Your task to perform on an android device: Open Google Chrome and open the bookmarks view Image 0: 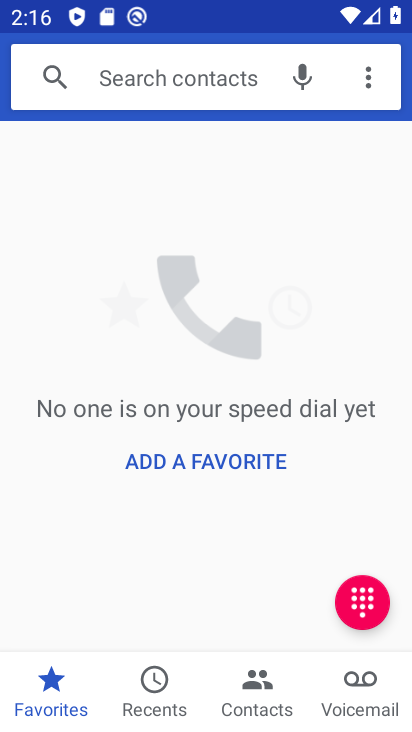
Step 0: press home button
Your task to perform on an android device: Open Google Chrome and open the bookmarks view Image 1: 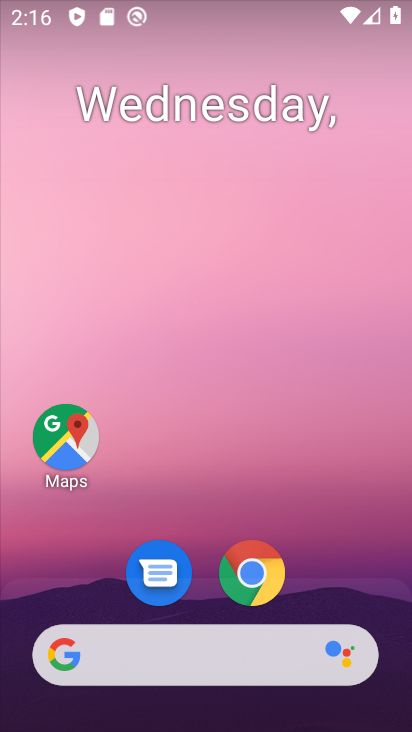
Step 1: click (266, 578)
Your task to perform on an android device: Open Google Chrome and open the bookmarks view Image 2: 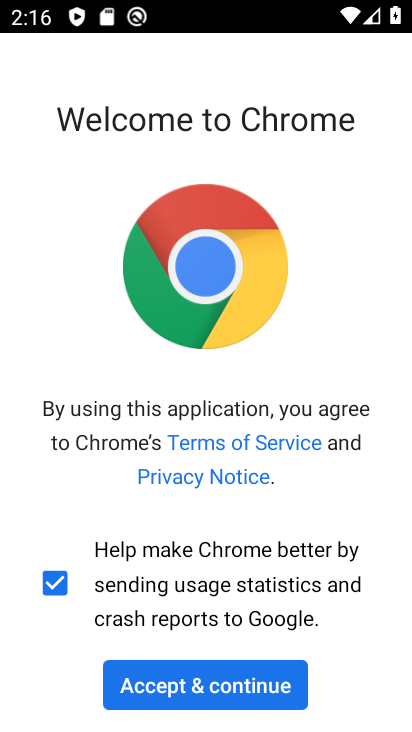
Step 2: click (286, 690)
Your task to perform on an android device: Open Google Chrome and open the bookmarks view Image 3: 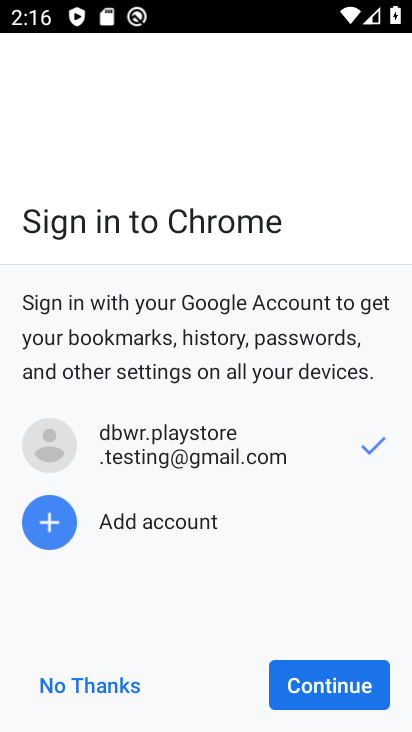
Step 3: click (313, 679)
Your task to perform on an android device: Open Google Chrome and open the bookmarks view Image 4: 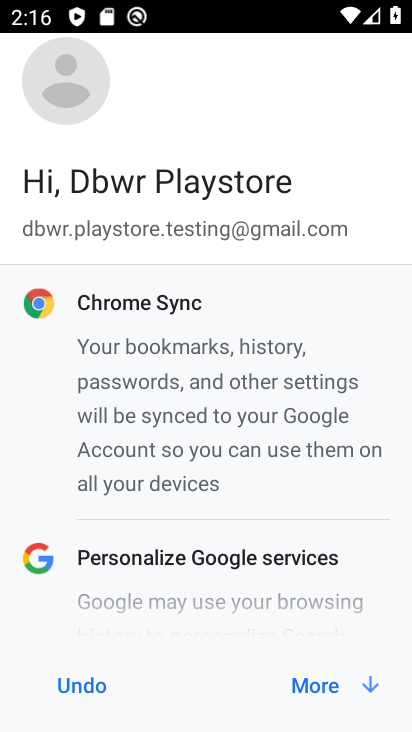
Step 4: click (327, 687)
Your task to perform on an android device: Open Google Chrome and open the bookmarks view Image 5: 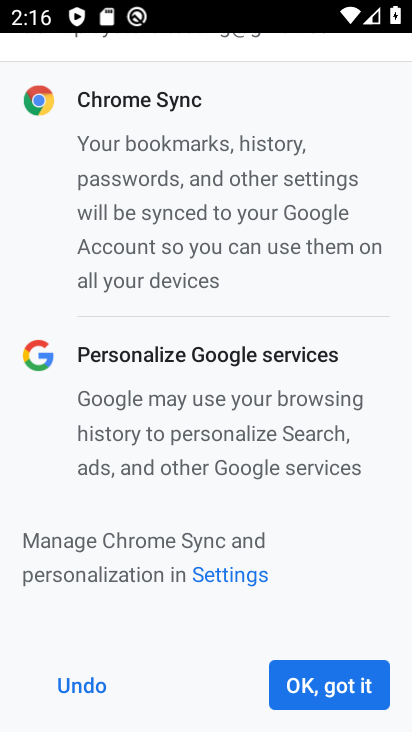
Step 5: click (325, 685)
Your task to perform on an android device: Open Google Chrome and open the bookmarks view Image 6: 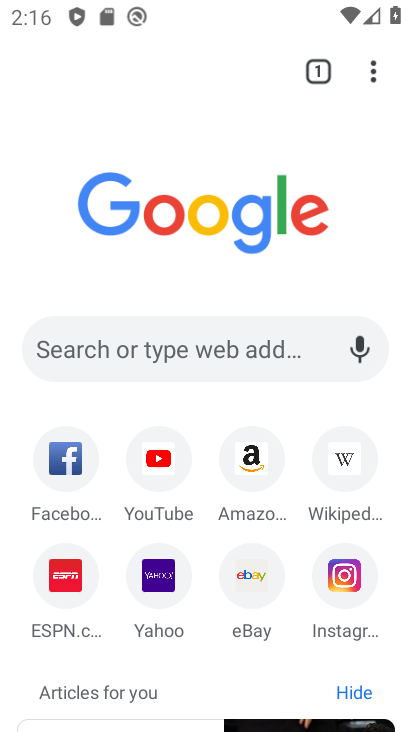
Step 6: task complete